Your task to perform on an android device: Go to Android settings Image 0: 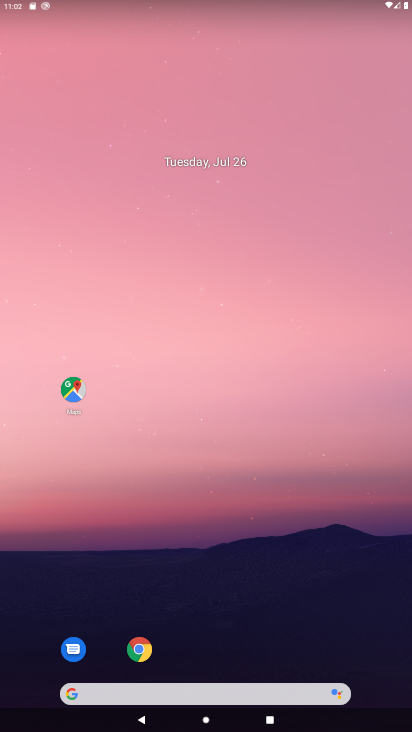
Step 0: drag from (220, 628) to (255, 0)
Your task to perform on an android device: Go to Android settings Image 1: 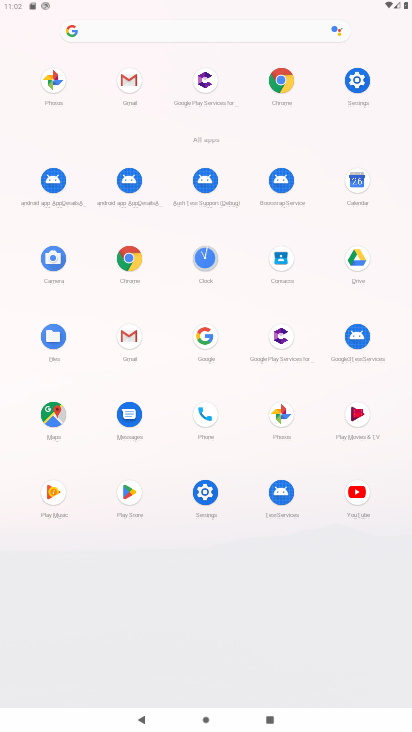
Step 1: click (205, 498)
Your task to perform on an android device: Go to Android settings Image 2: 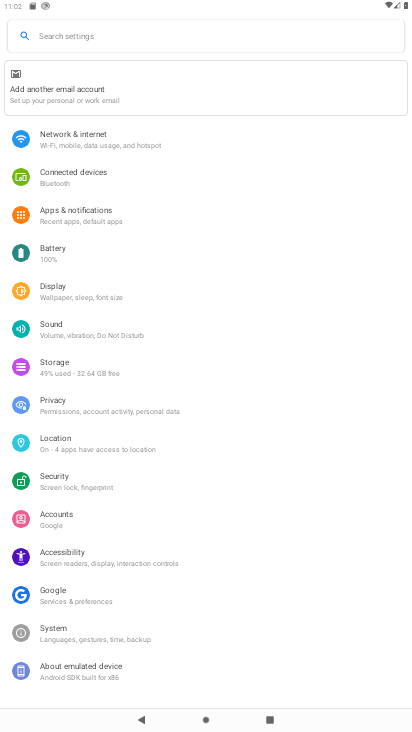
Step 2: click (83, 674)
Your task to perform on an android device: Go to Android settings Image 3: 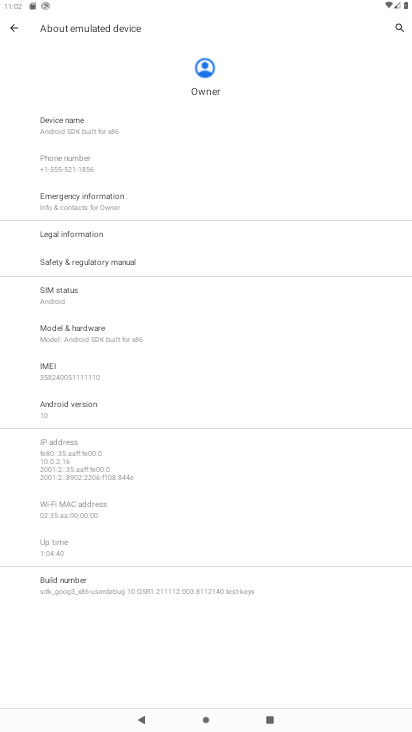
Step 3: click (89, 411)
Your task to perform on an android device: Go to Android settings Image 4: 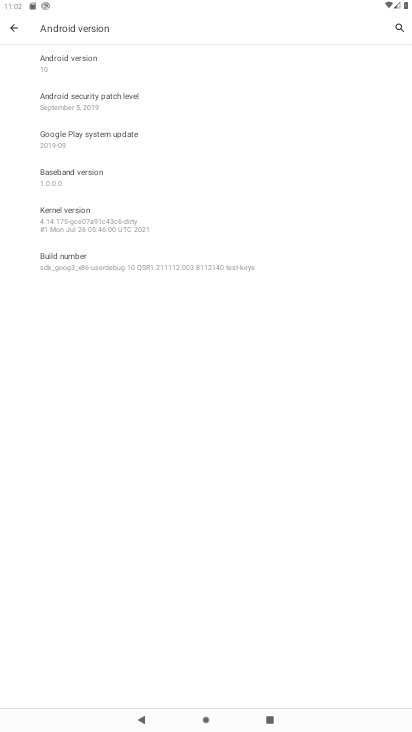
Step 4: task complete